Your task to perform on an android device: create a new album in the google photos Image 0: 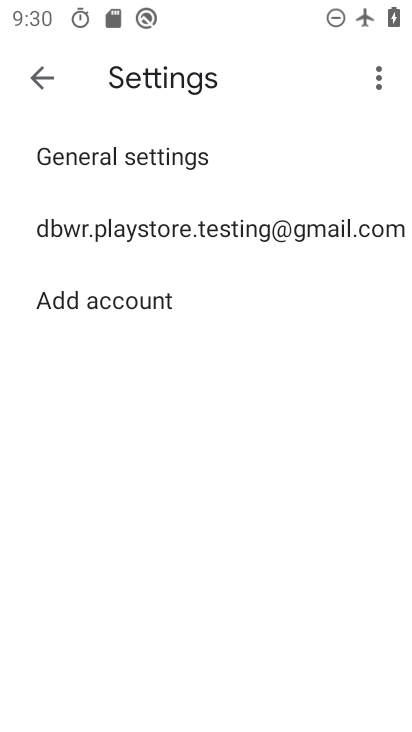
Step 0: press home button
Your task to perform on an android device: create a new album in the google photos Image 1: 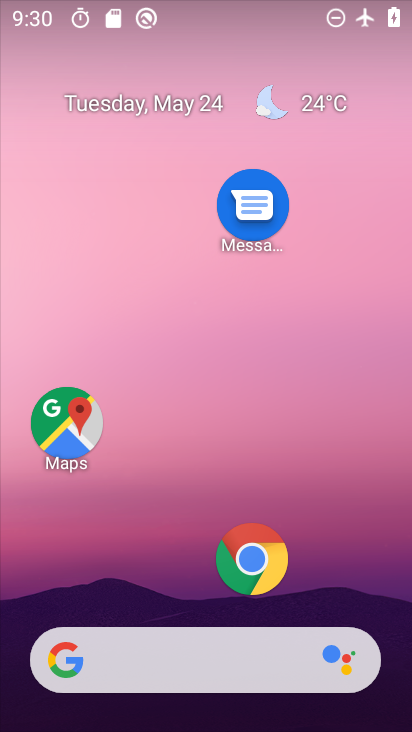
Step 1: drag from (181, 593) to (181, 229)
Your task to perform on an android device: create a new album in the google photos Image 2: 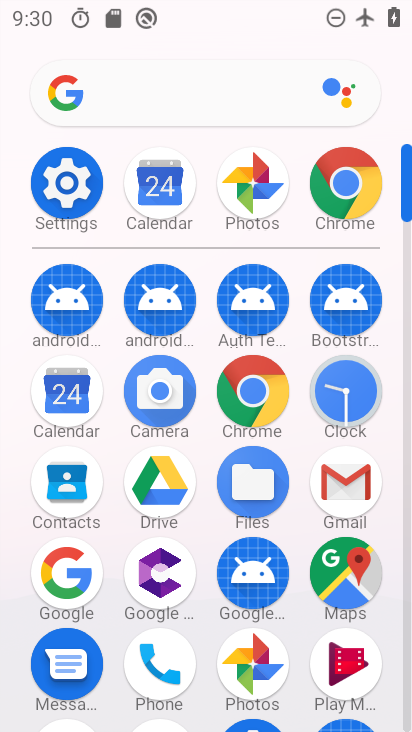
Step 2: click (242, 204)
Your task to perform on an android device: create a new album in the google photos Image 3: 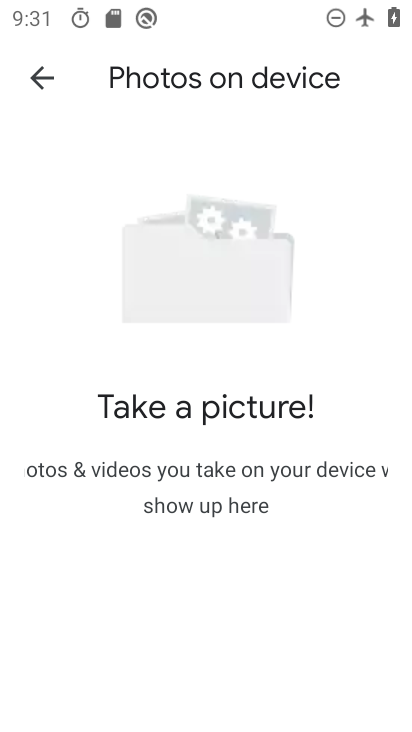
Step 3: click (43, 85)
Your task to perform on an android device: create a new album in the google photos Image 4: 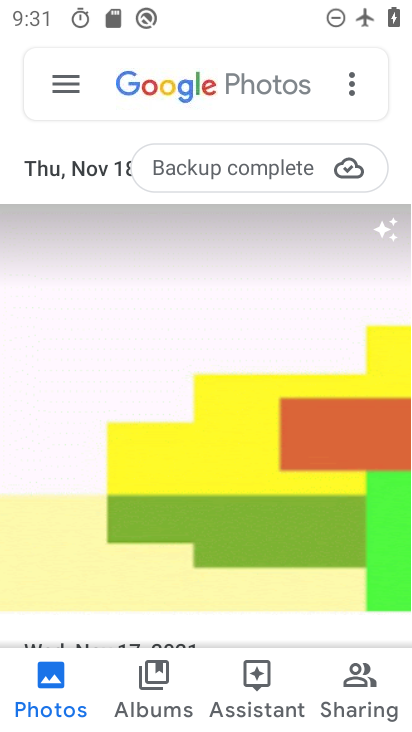
Step 4: click (349, 96)
Your task to perform on an android device: create a new album in the google photos Image 5: 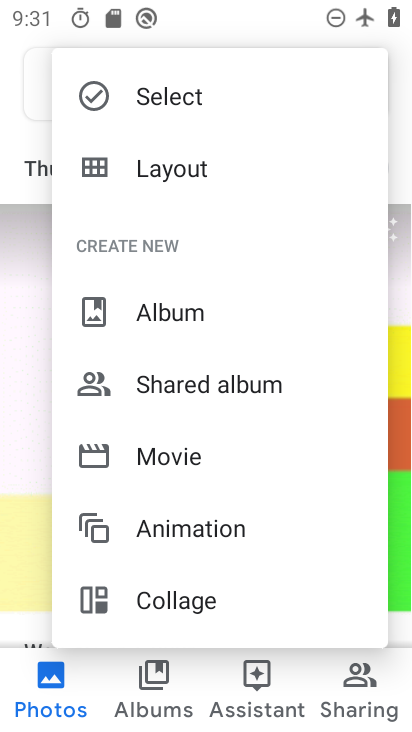
Step 5: click (172, 305)
Your task to perform on an android device: create a new album in the google photos Image 6: 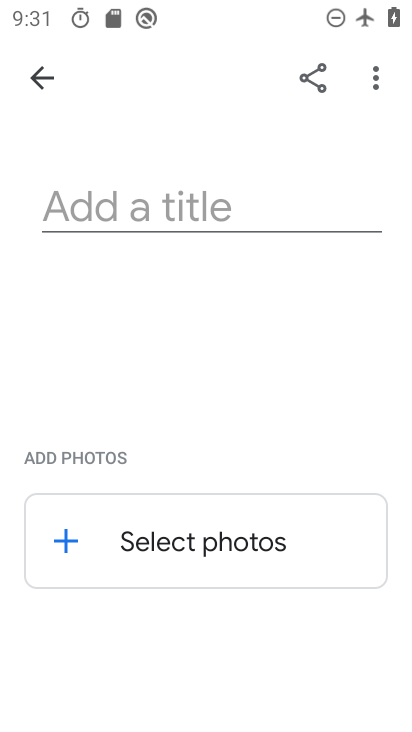
Step 6: click (109, 212)
Your task to perform on an android device: create a new album in the google photos Image 7: 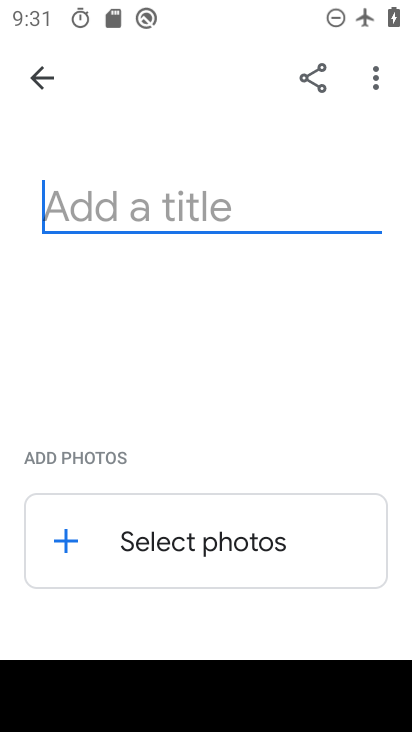
Step 7: type "nvjh"
Your task to perform on an android device: create a new album in the google photos Image 8: 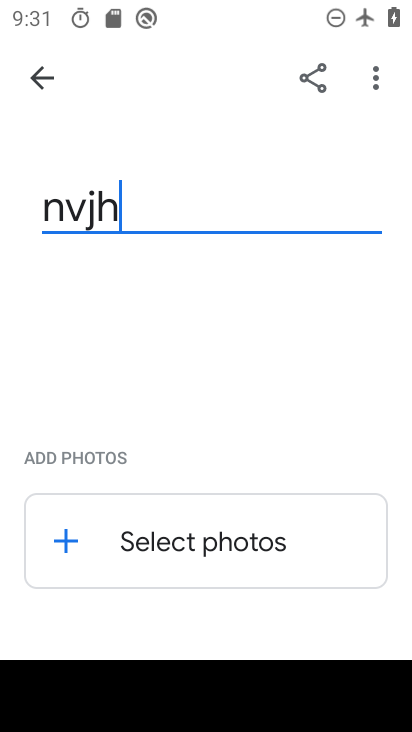
Step 8: click (71, 539)
Your task to perform on an android device: create a new album in the google photos Image 9: 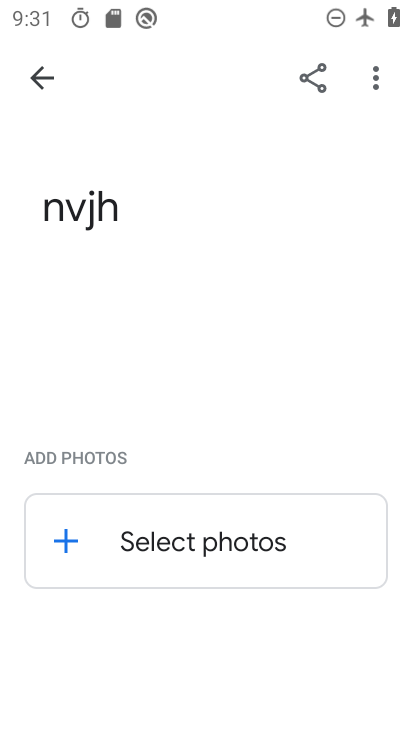
Step 9: click (62, 542)
Your task to perform on an android device: create a new album in the google photos Image 10: 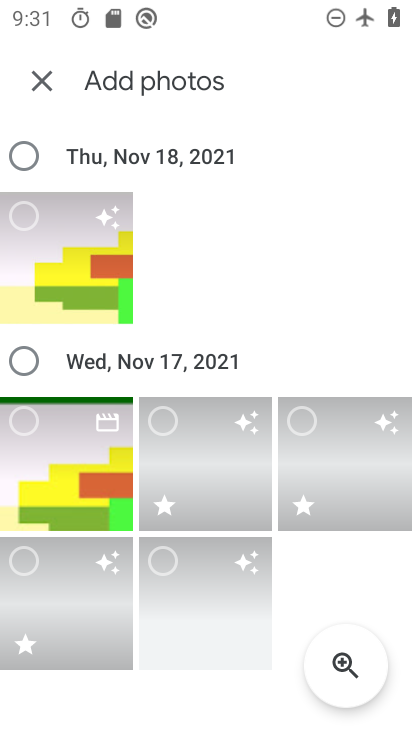
Step 10: click (32, 257)
Your task to perform on an android device: create a new album in the google photos Image 11: 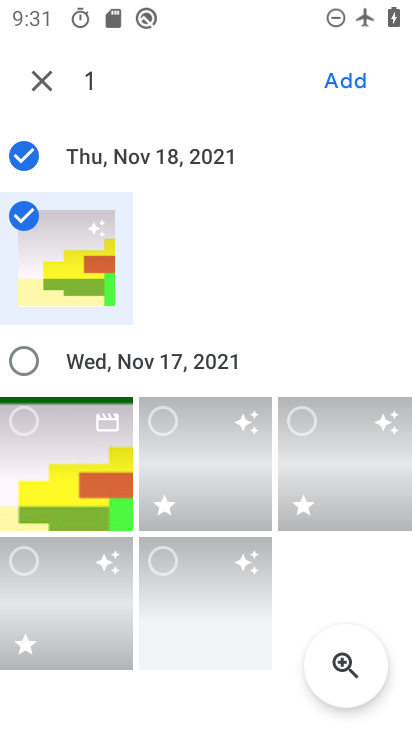
Step 11: click (348, 78)
Your task to perform on an android device: create a new album in the google photos Image 12: 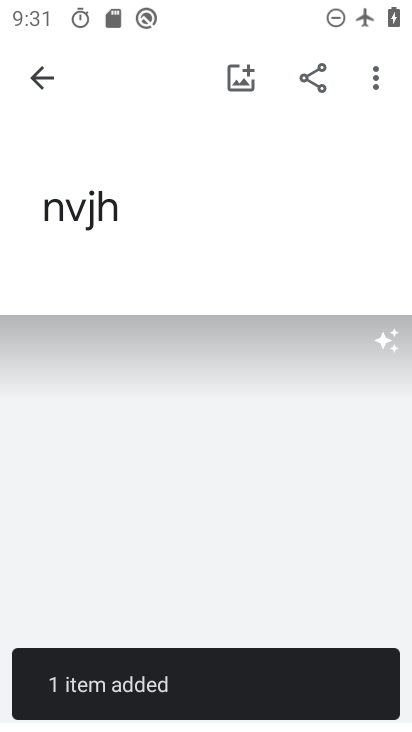
Step 12: task complete